Your task to perform on an android device: Open battery settings Image 0: 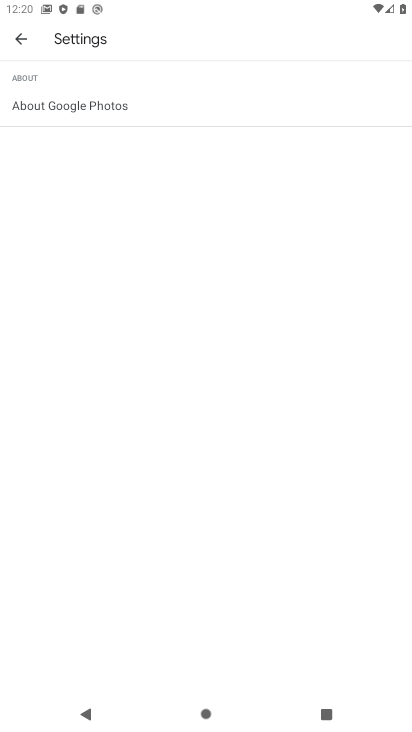
Step 0: press home button
Your task to perform on an android device: Open battery settings Image 1: 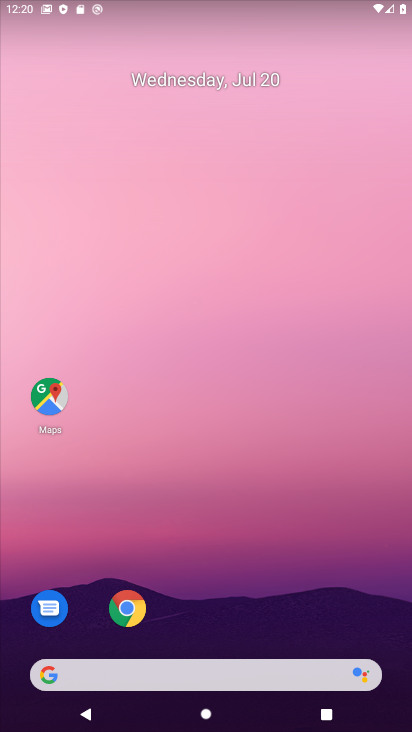
Step 1: drag from (219, 645) to (240, 280)
Your task to perform on an android device: Open battery settings Image 2: 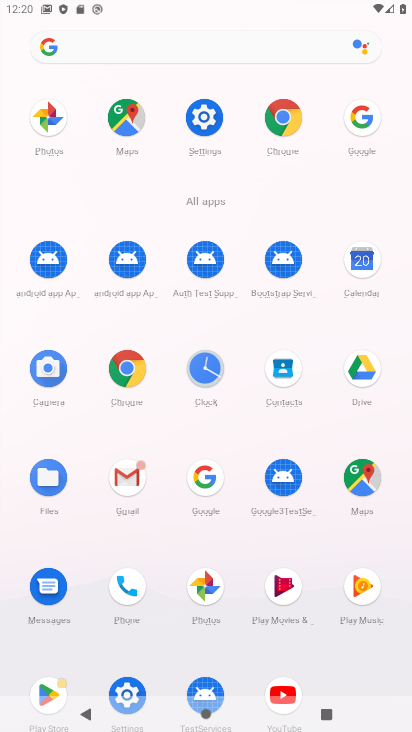
Step 2: click (207, 136)
Your task to perform on an android device: Open battery settings Image 3: 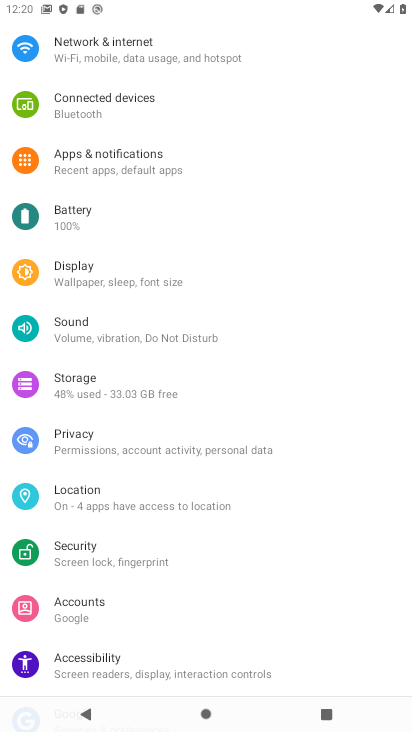
Step 3: click (97, 222)
Your task to perform on an android device: Open battery settings Image 4: 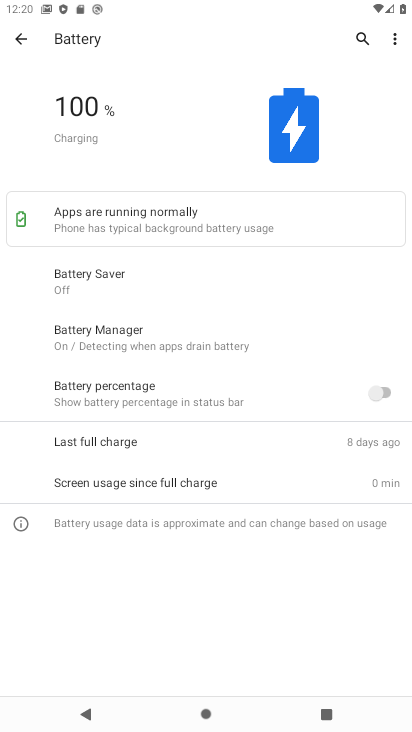
Step 4: task complete